Your task to perform on an android device: change your default location settings in chrome Image 0: 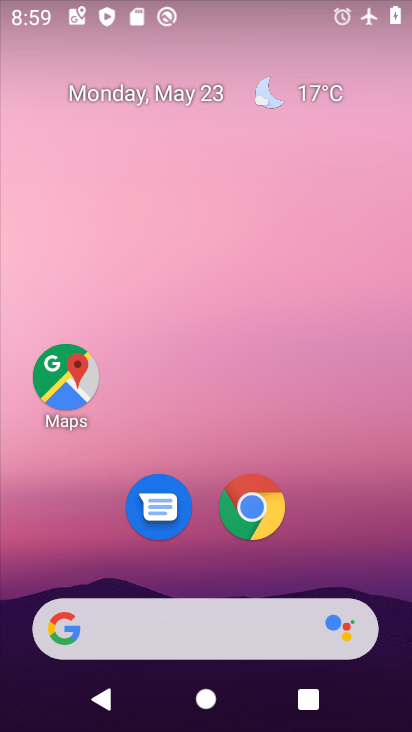
Step 0: click (251, 509)
Your task to perform on an android device: change your default location settings in chrome Image 1: 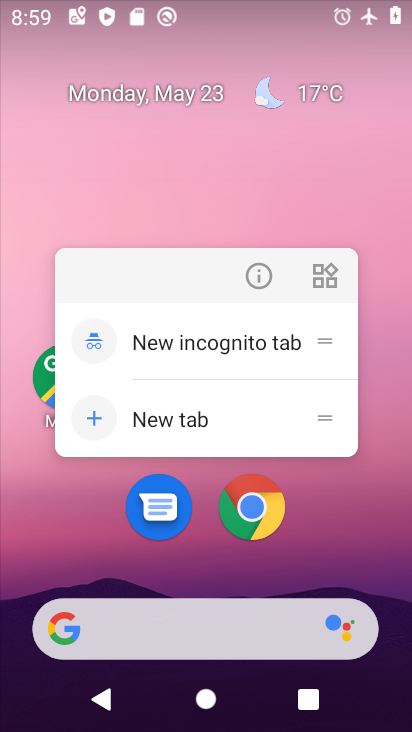
Step 1: click (251, 509)
Your task to perform on an android device: change your default location settings in chrome Image 2: 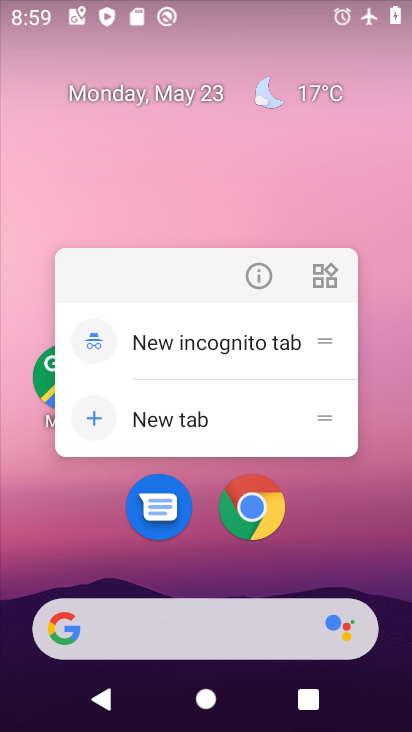
Step 2: click (252, 517)
Your task to perform on an android device: change your default location settings in chrome Image 3: 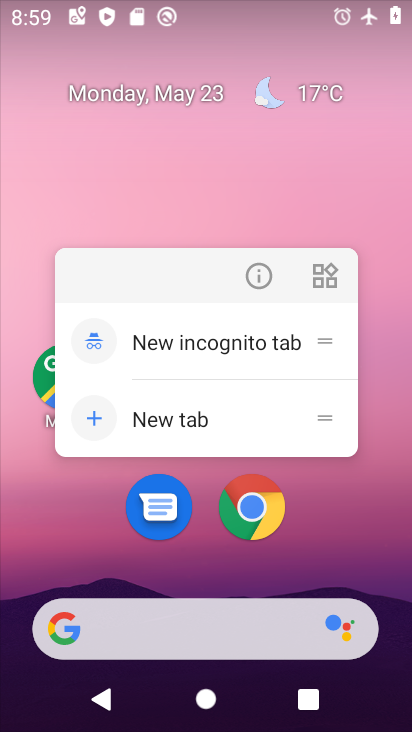
Step 3: click (254, 518)
Your task to perform on an android device: change your default location settings in chrome Image 4: 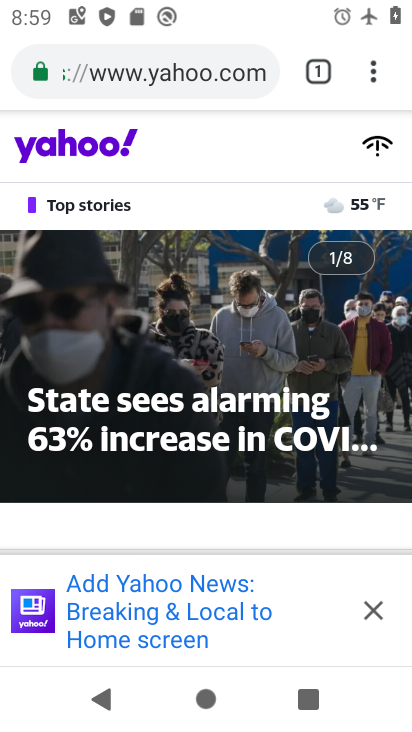
Step 4: click (378, 78)
Your task to perform on an android device: change your default location settings in chrome Image 5: 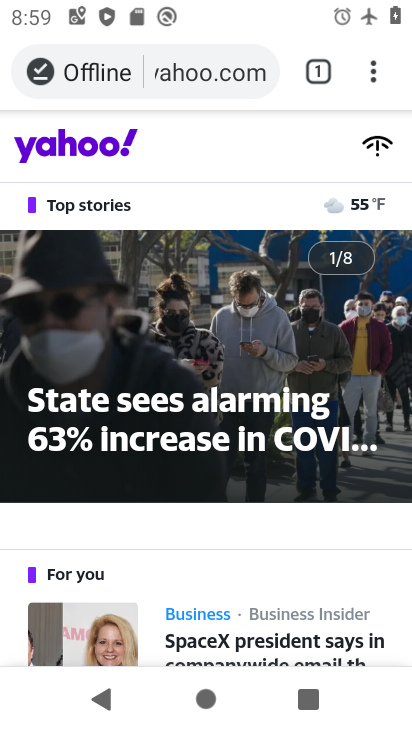
Step 5: click (374, 70)
Your task to perform on an android device: change your default location settings in chrome Image 6: 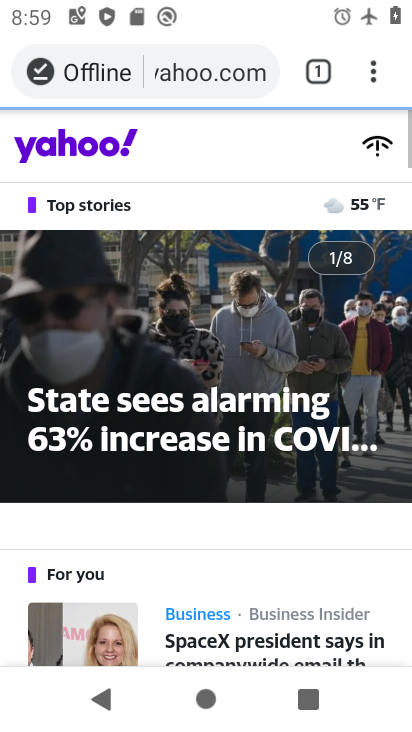
Step 6: drag from (374, 69) to (137, 508)
Your task to perform on an android device: change your default location settings in chrome Image 7: 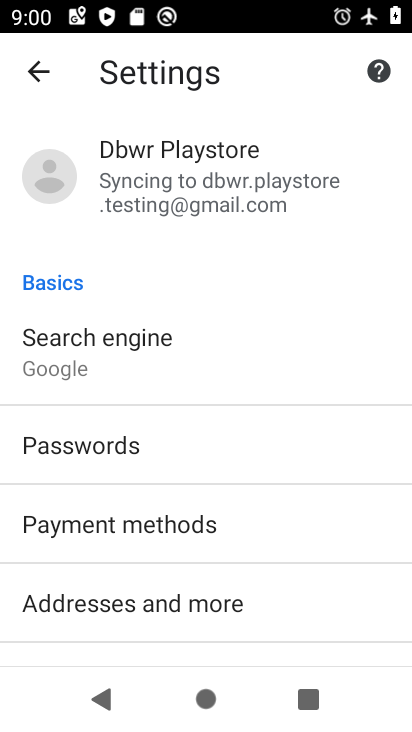
Step 7: drag from (257, 532) to (259, 159)
Your task to perform on an android device: change your default location settings in chrome Image 8: 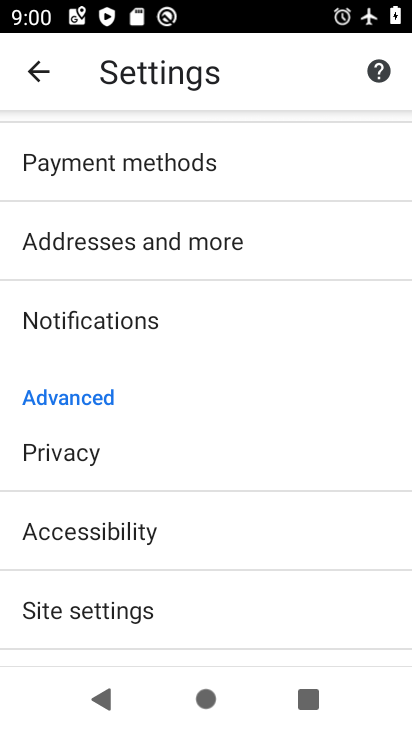
Step 8: click (127, 610)
Your task to perform on an android device: change your default location settings in chrome Image 9: 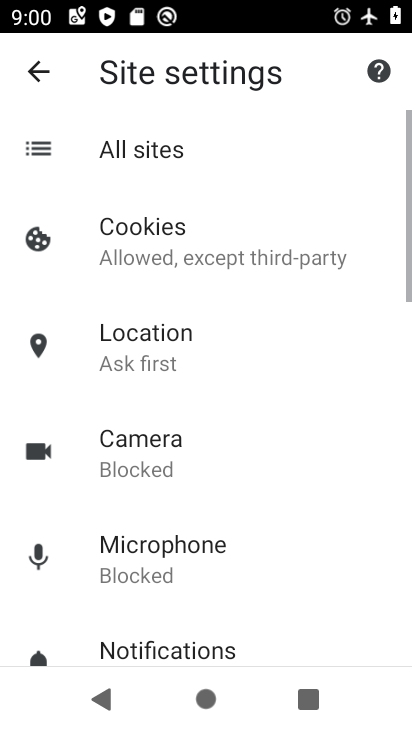
Step 9: click (123, 358)
Your task to perform on an android device: change your default location settings in chrome Image 10: 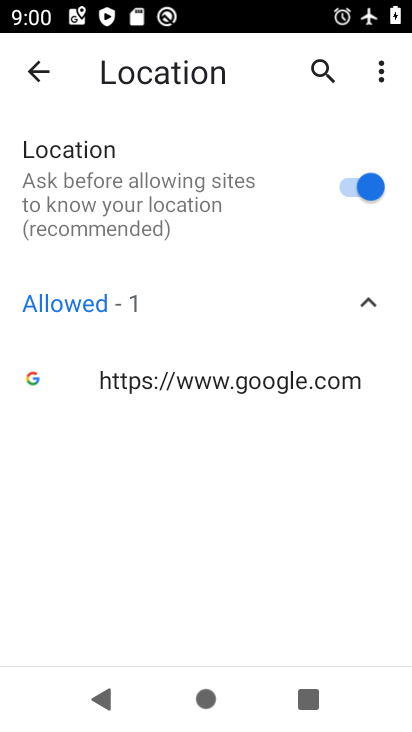
Step 10: click (370, 171)
Your task to perform on an android device: change your default location settings in chrome Image 11: 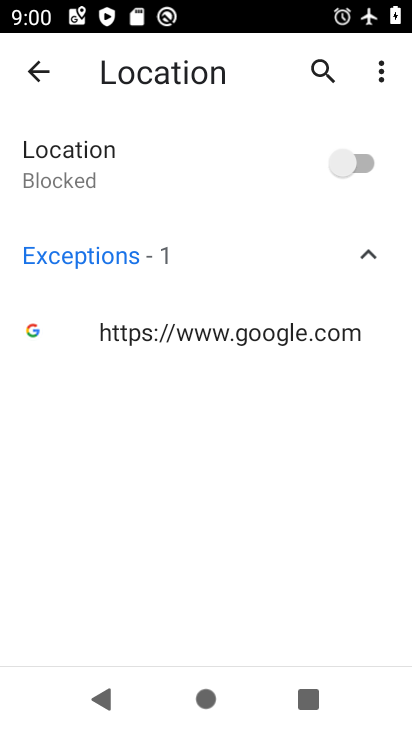
Step 11: task complete